Your task to perform on an android device: Go to Yahoo.com Image 0: 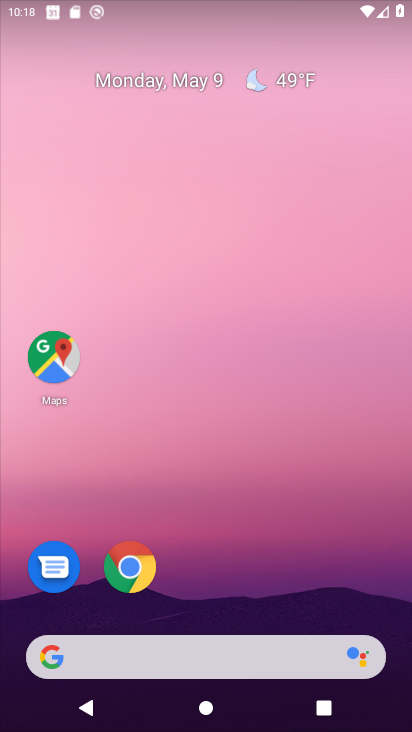
Step 0: drag from (234, 606) to (203, 217)
Your task to perform on an android device: Go to Yahoo.com Image 1: 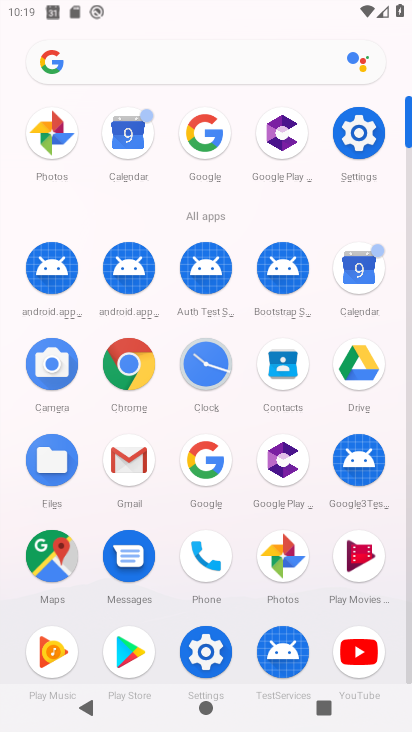
Step 1: click (186, 459)
Your task to perform on an android device: Go to Yahoo.com Image 2: 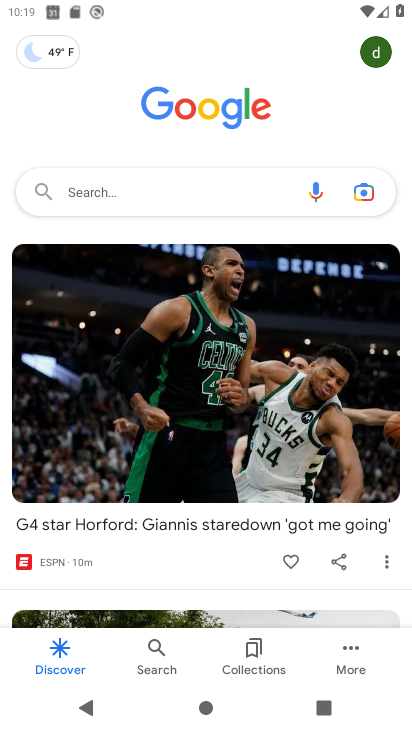
Step 2: click (84, 190)
Your task to perform on an android device: Go to Yahoo.com Image 3: 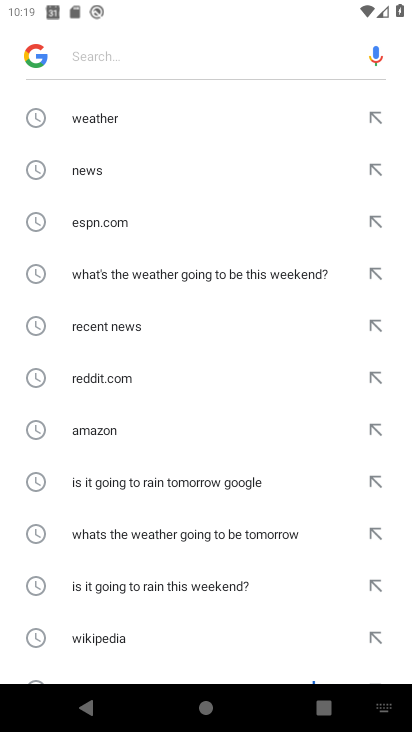
Step 3: type "yahoo.com"
Your task to perform on an android device: Go to Yahoo.com Image 4: 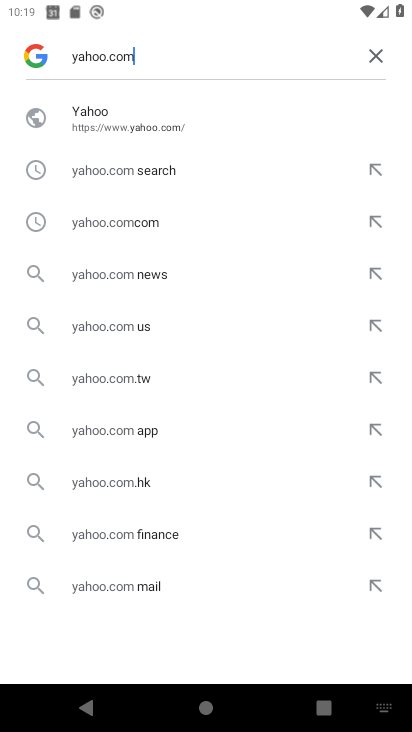
Step 4: click (91, 118)
Your task to perform on an android device: Go to Yahoo.com Image 5: 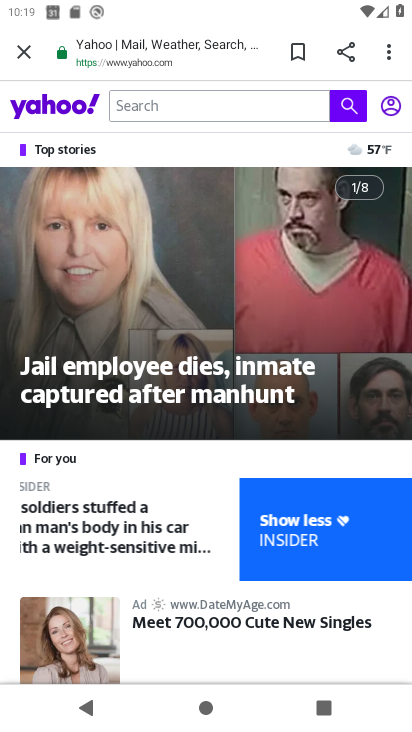
Step 5: task complete